Your task to perform on an android device: open app "PUBG MOBILE" (install if not already installed), go to login, and select forgot password Image 0: 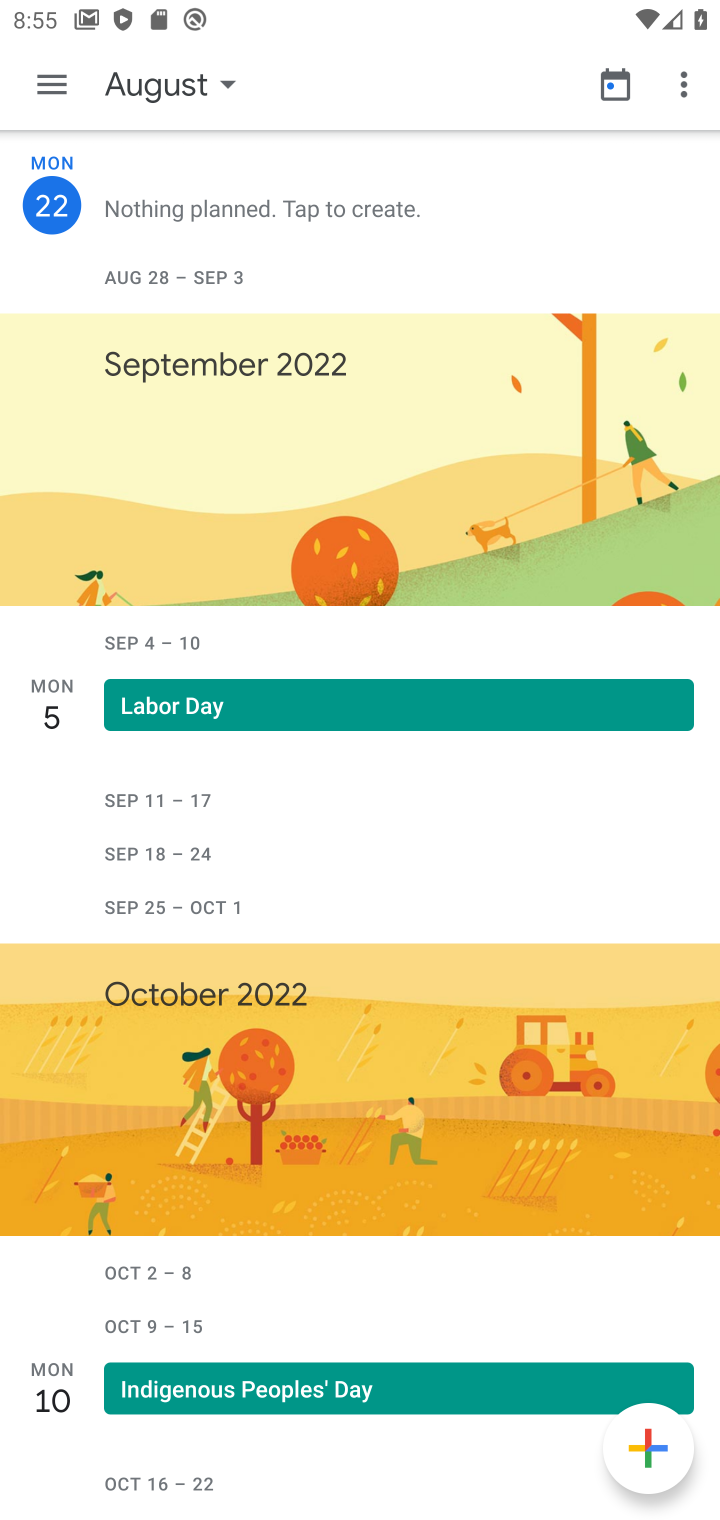
Step 0: press home button
Your task to perform on an android device: open app "PUBG MOBILE" (install if not already installed), go to login, and select forgot password Image 1: 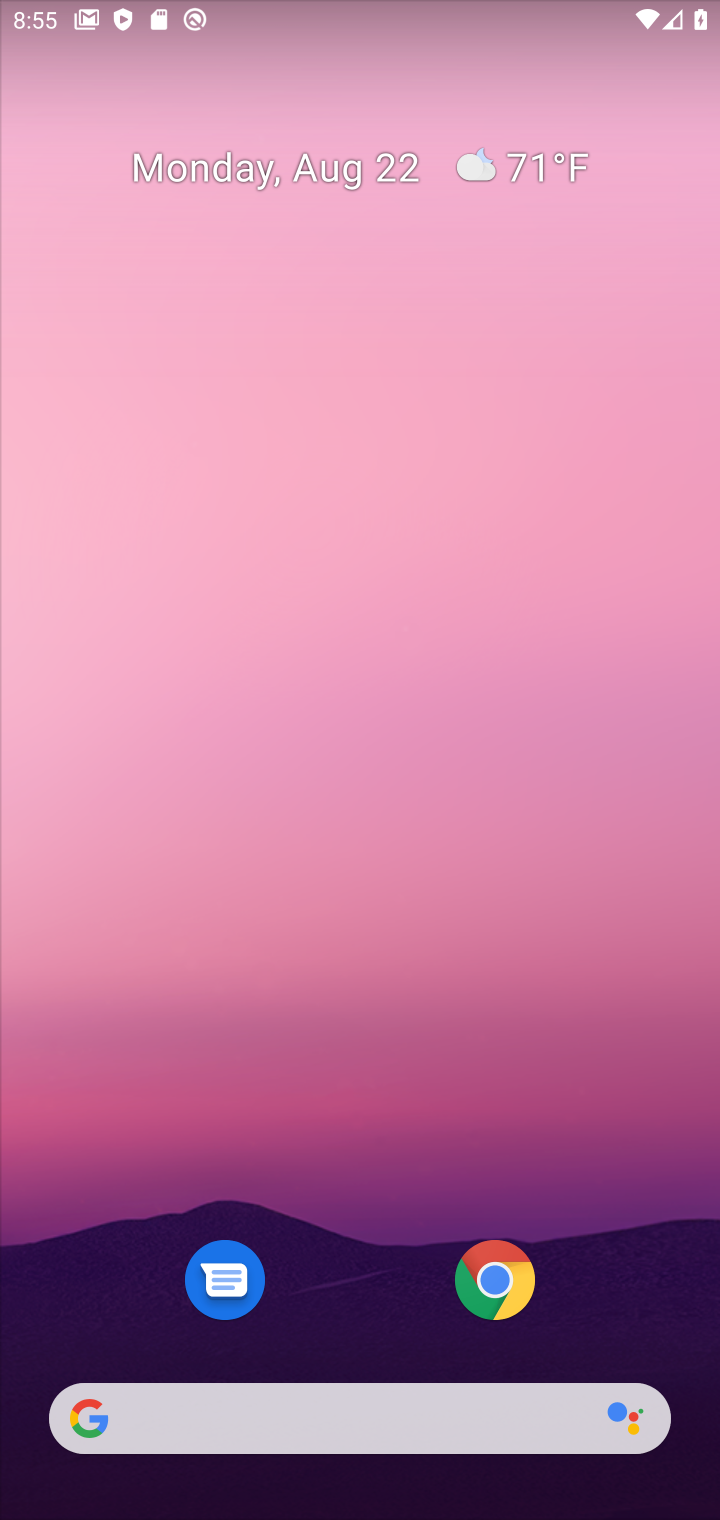
Step 1: drag from (350, 870) to (658, 399)
Your task to perform on an android device: open app "PUBG MOBILE" (install if not already installed), go to login, and select forgot password Image 2: 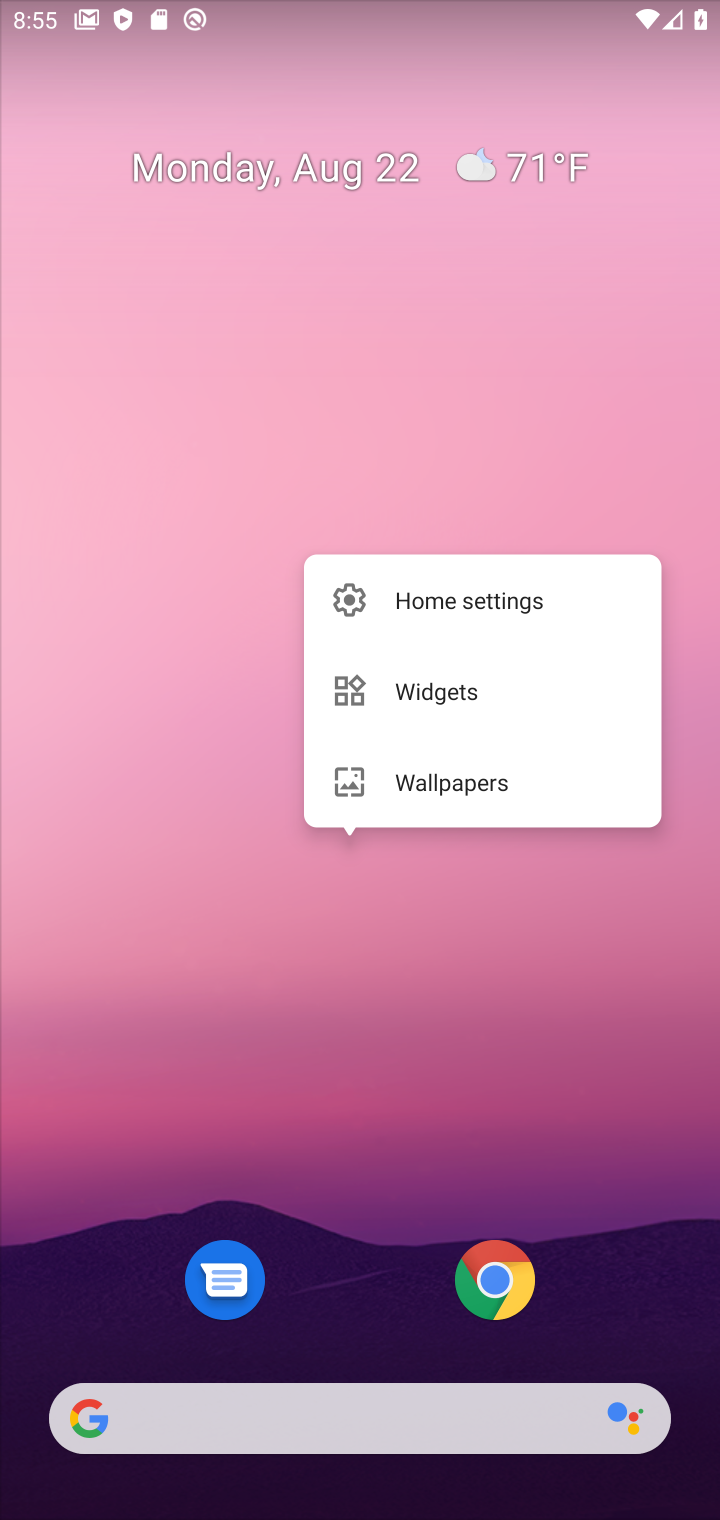
Step 2: click (89, 903)
Your task to perform on an android device: open app "PUBG MOBILE" (install if not already installed), go to login, and select forgot password Image 3: 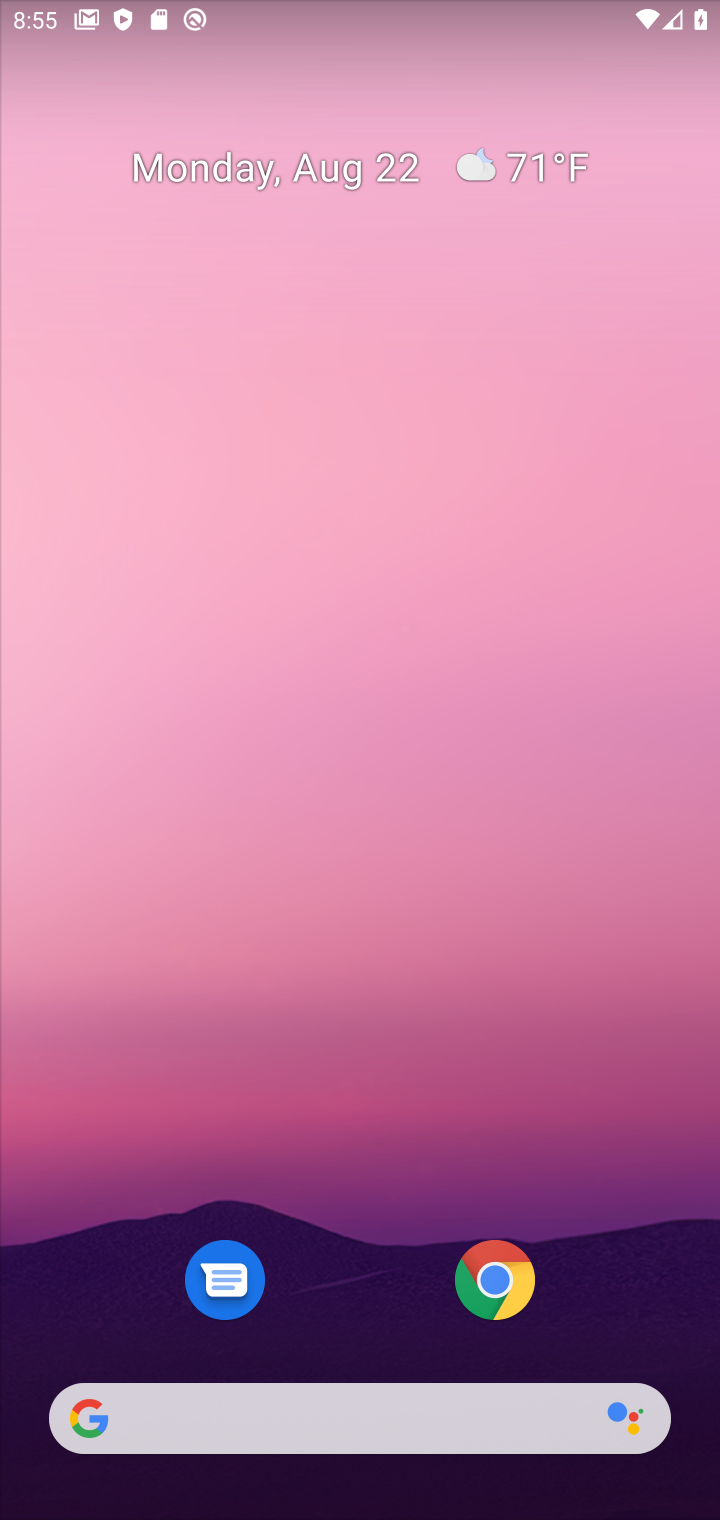
Step 3: click (312, 985)
Your task to perform on an android device: open app "PUBG MOBILE" (install if not already installed), go to login, and select forgot password Image 4: 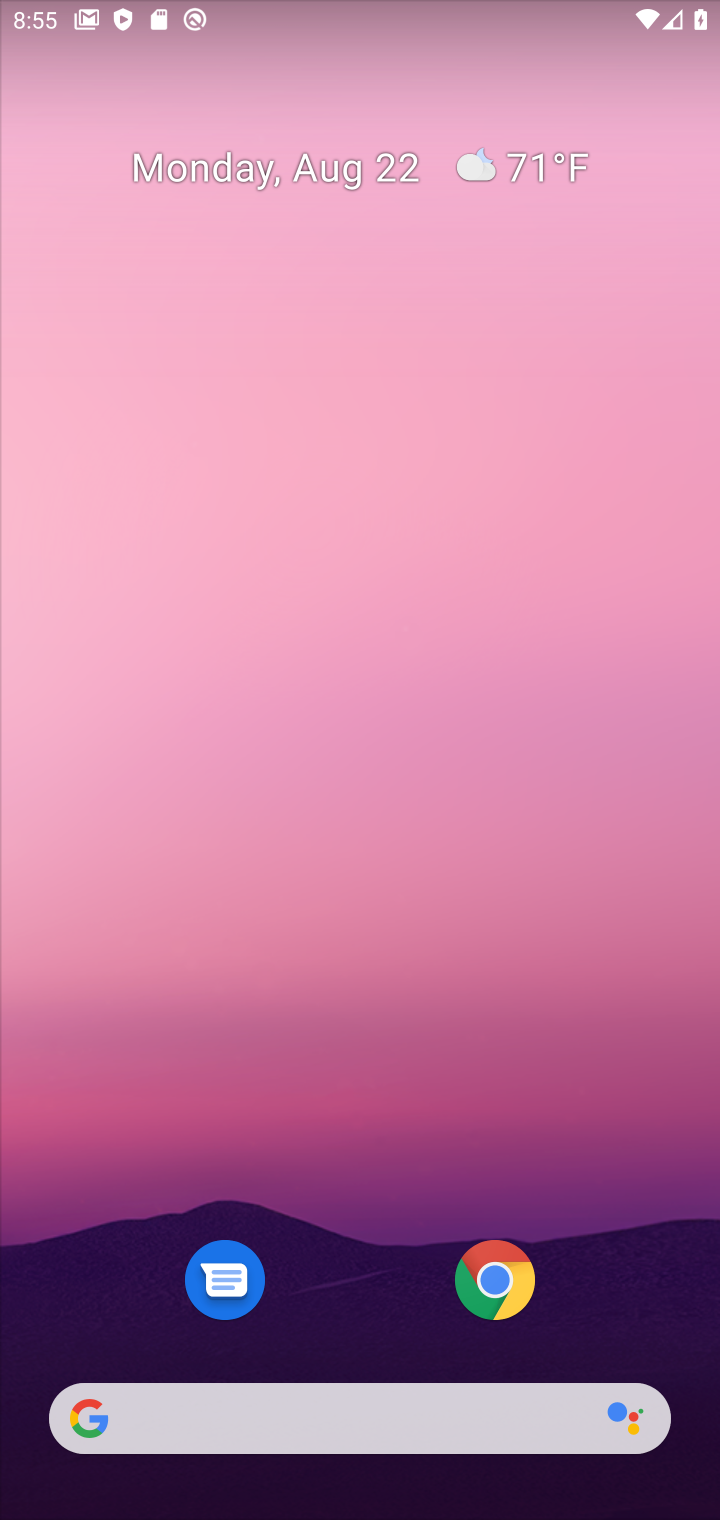
Step 4: drag from (376, 1372) to (295, 2)
Your task to perform on an android device: open app "PUBG MOBILE" (install if not already installed), go to login, and select forgot password Image 5: 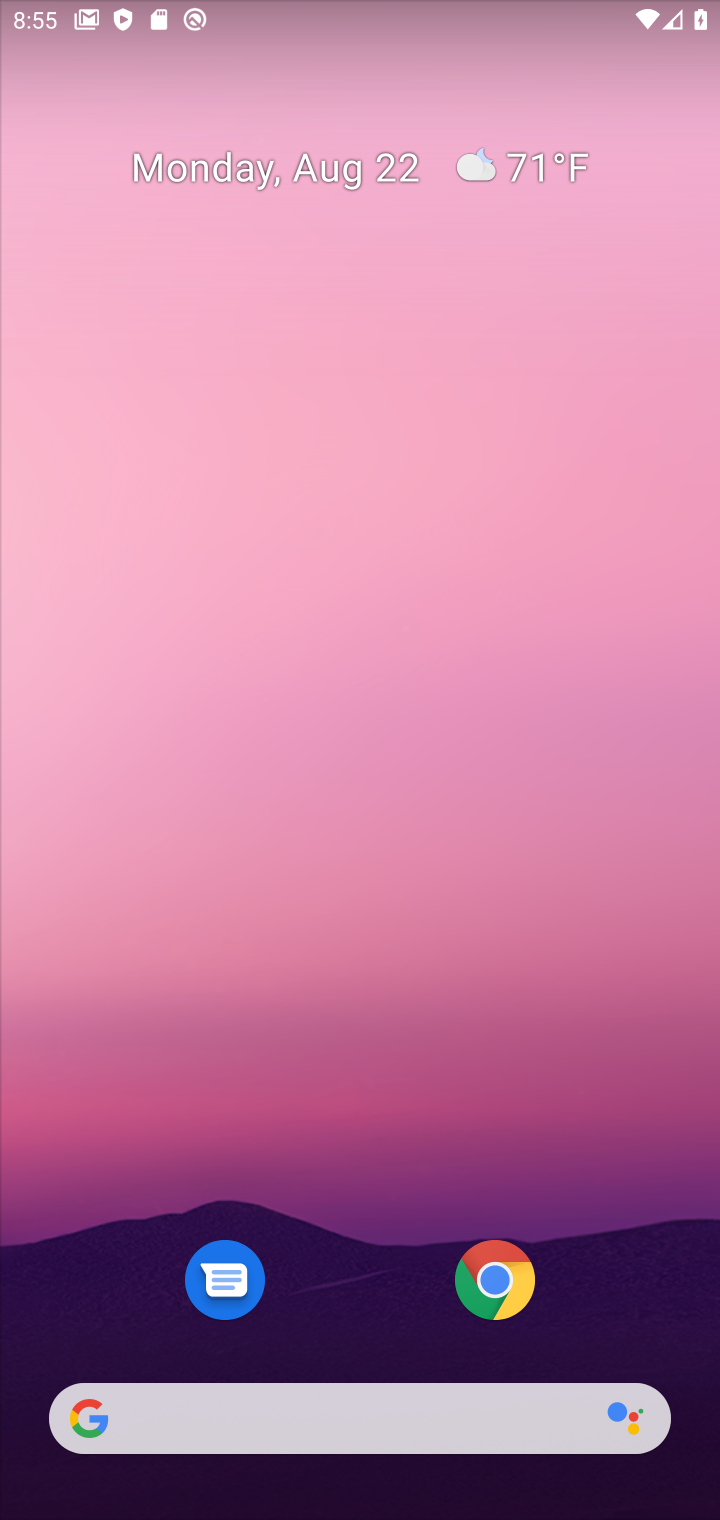
Step 5: drag from (482, 732) to (684, 50)
Your task to perform on an android device: open app "PUBG MOBILE" (install if not already installed), go to login, and select forgot password Image 6: 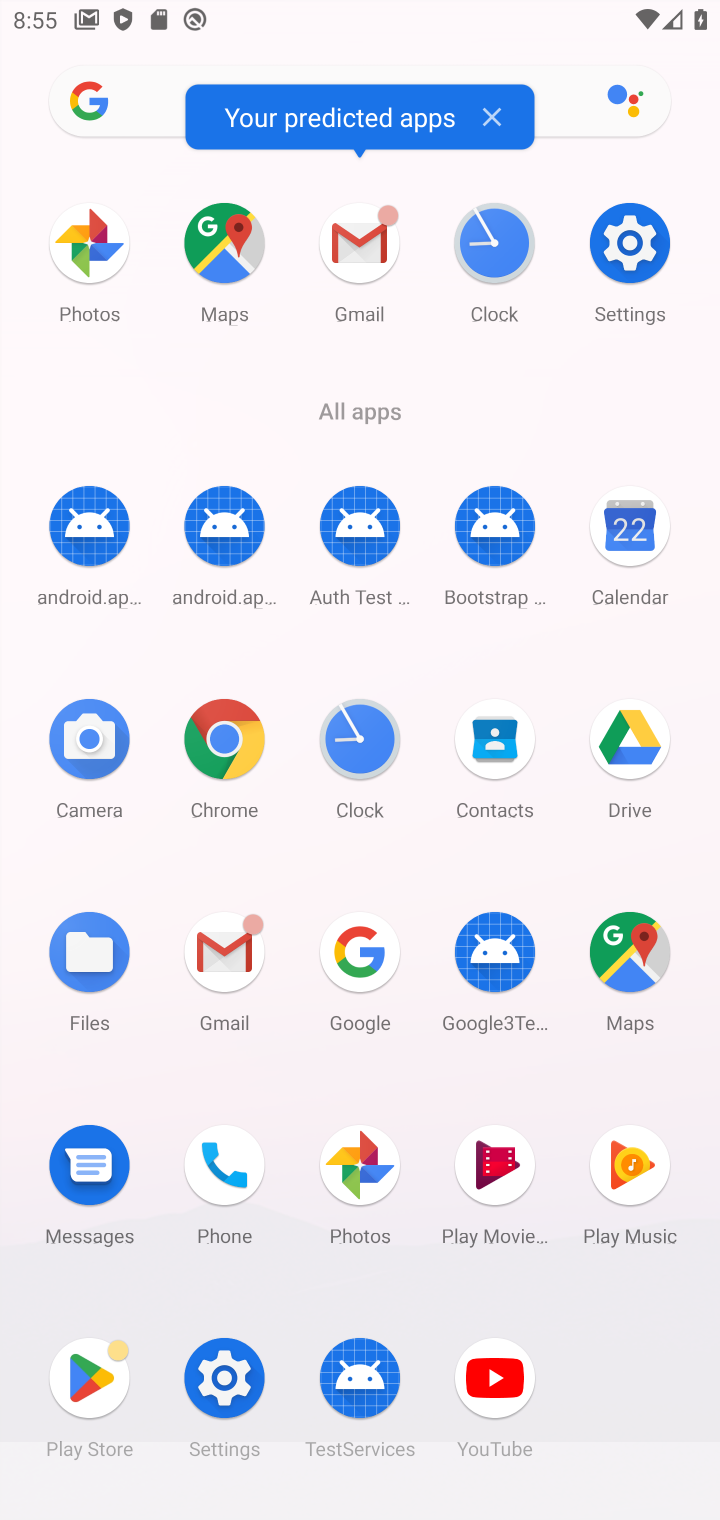
Step 6: click (360, 248)
Your task to perform on an android device: open app "PUBG MOBILE" (install if not already installed), go to login, and select forgot password Image 7: 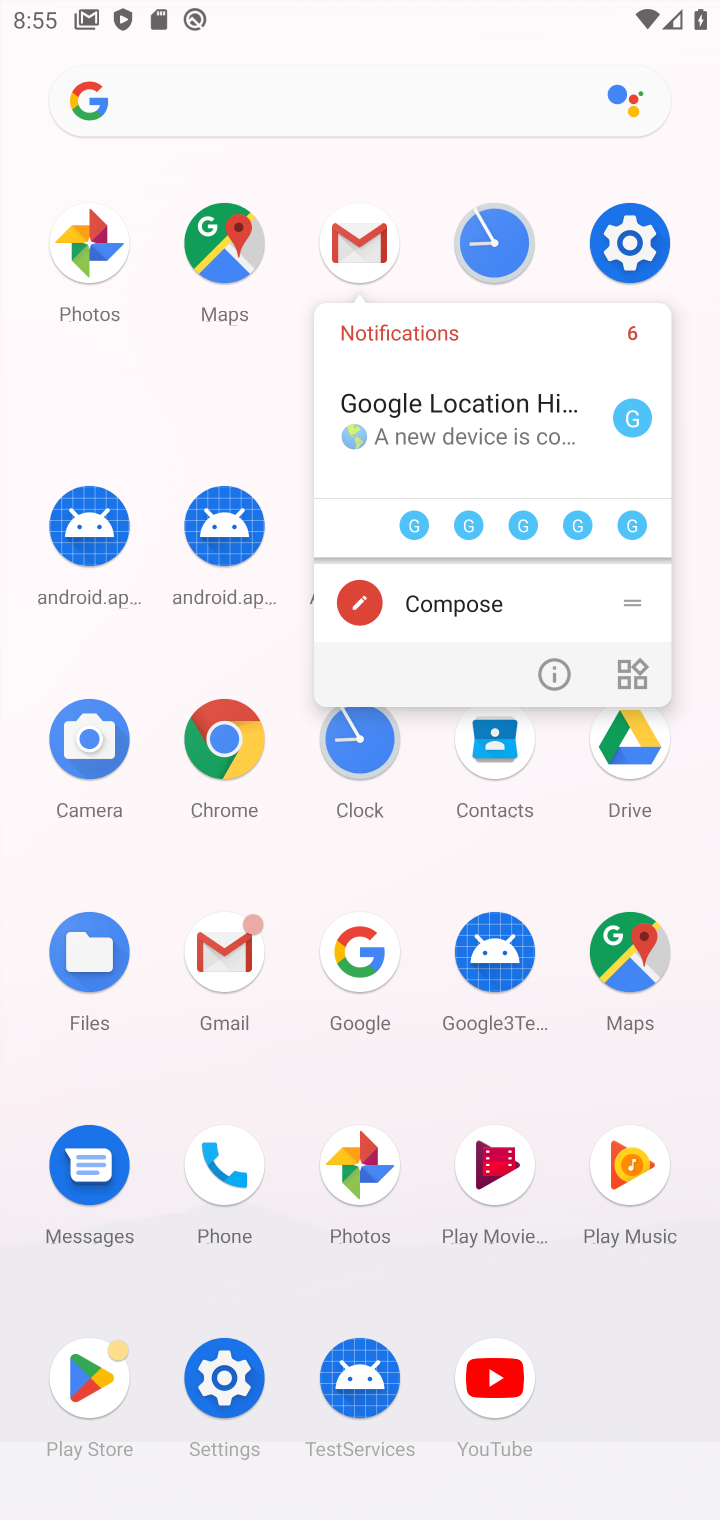
Step 7: click (361, 245)
Your task to perform on an android device: open app "PUBG MOBILE" (install if not already installed), go to login, and select forgot password Image 8: 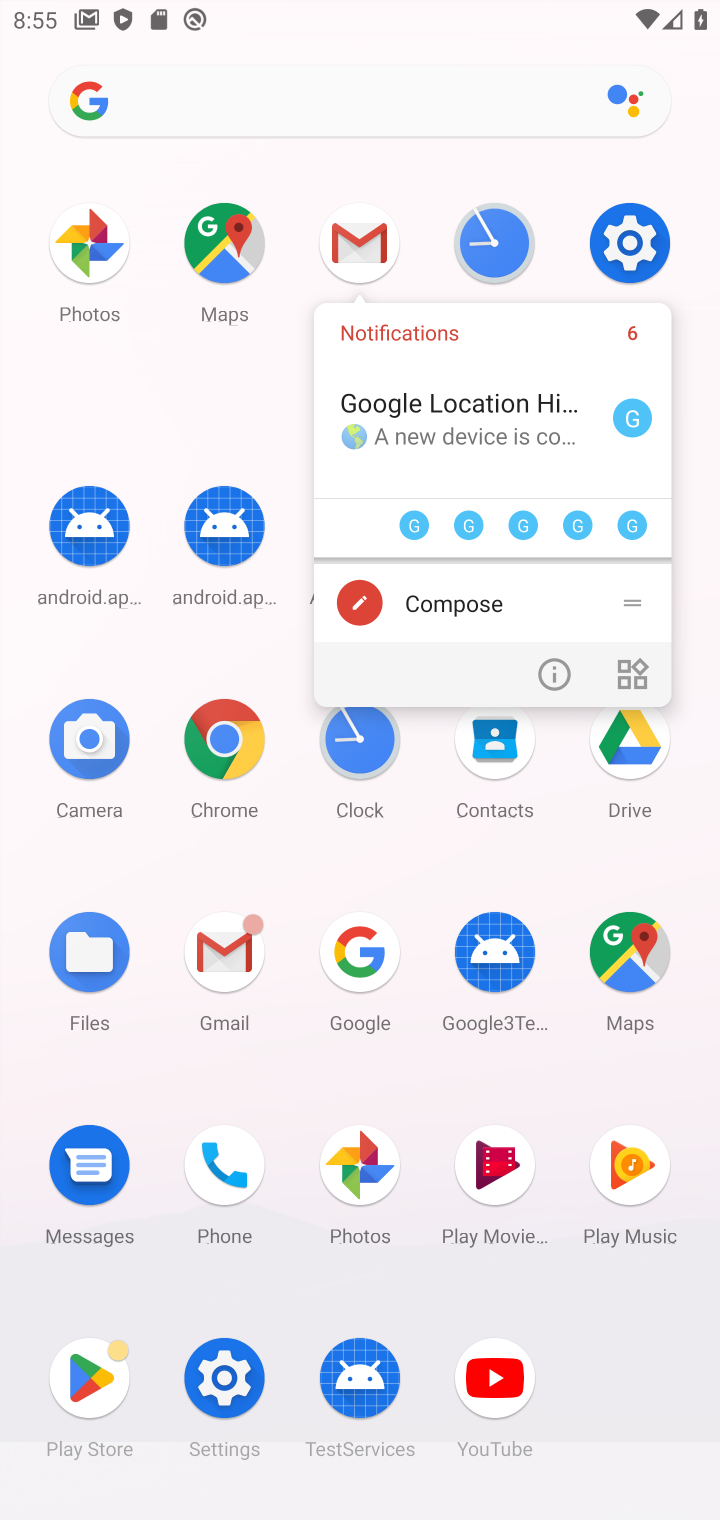
Step 8: click (361, 244)
Your task to perform on an android device: open app "PUBG MOBILE" (install if not already installed), go to login, and select forgot password Image 9: 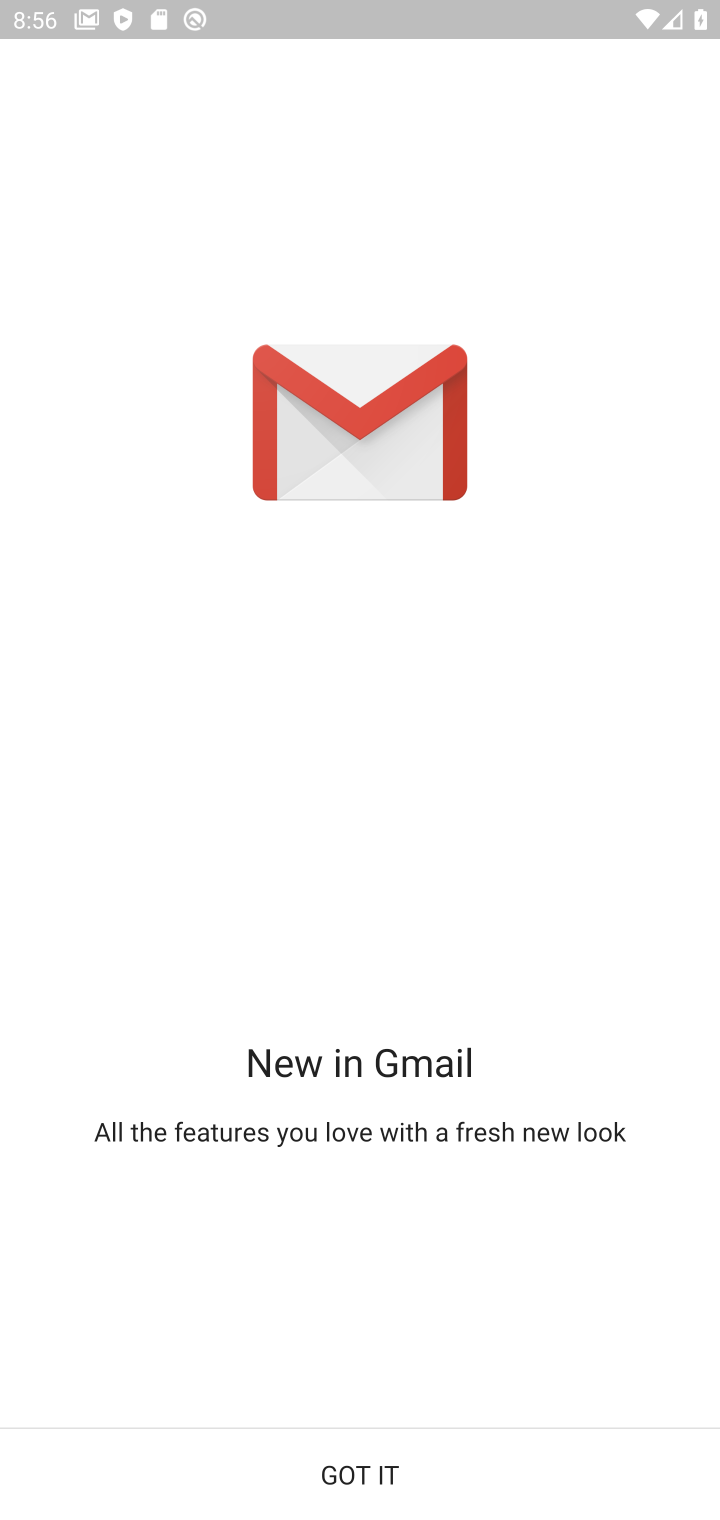
Step 9: press home button
Your task to perform on an android device: open app "PUBG MOBILE" (install if not already installed), go to login, and select forgot password Image 10: 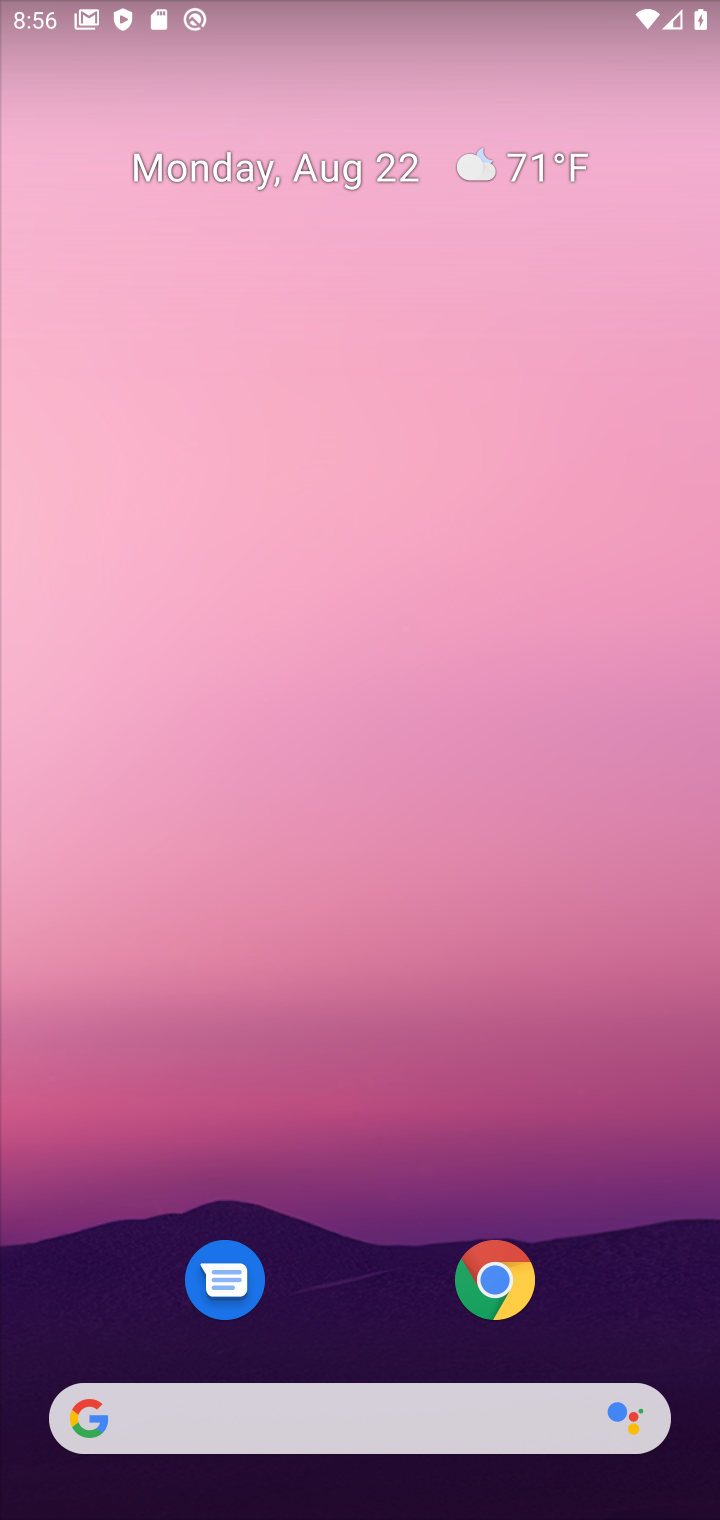
Step 10: drag from (416, 713) to (376, 21)
Your task to perform on an android device: open app "PUBG MOBILE" (install if not already installed), go to login, and select forgot password Image 11: 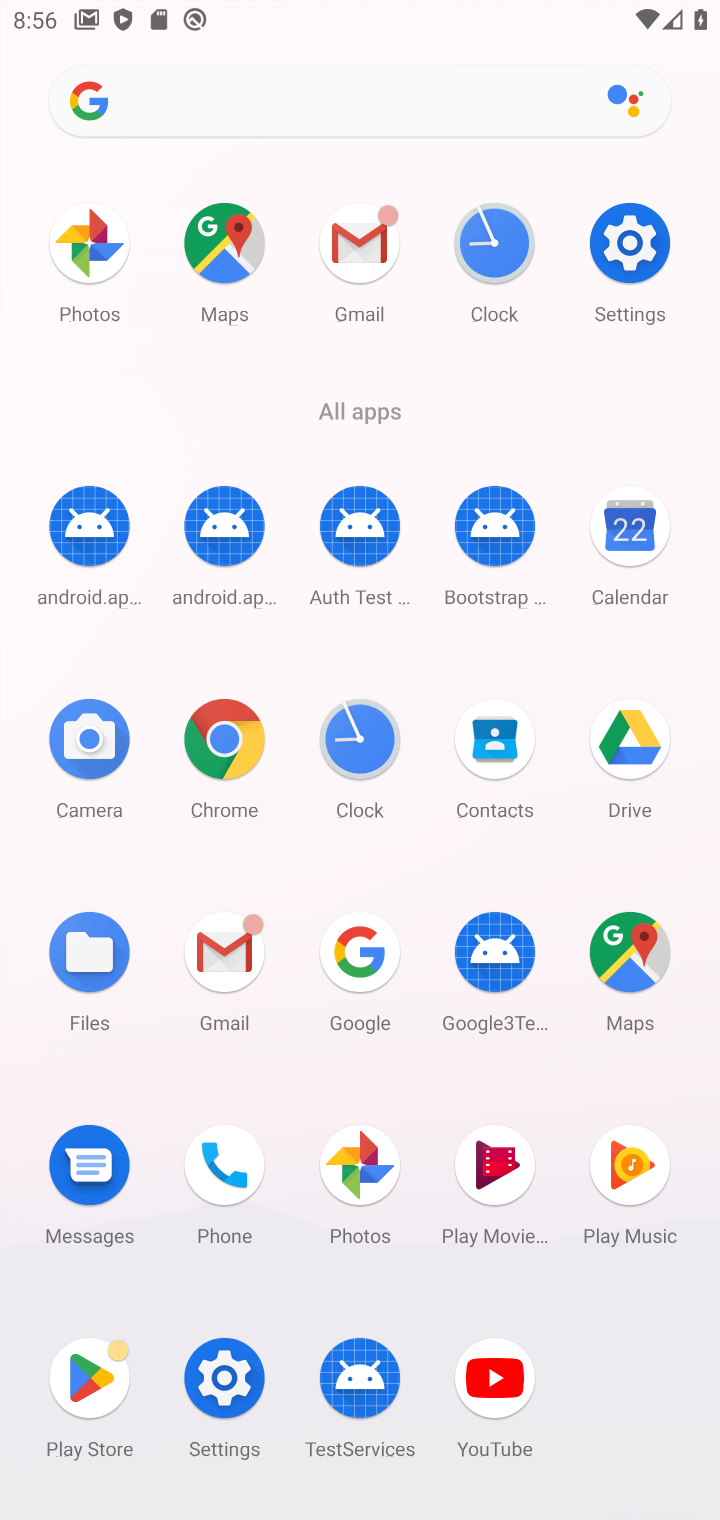
Step 11: drag from (534, 1318) to (394, 190)
Your task to perform on an android device: open app "PUBG MOBILE" (install if not already installed), go to login, and select forgot password Image 12: 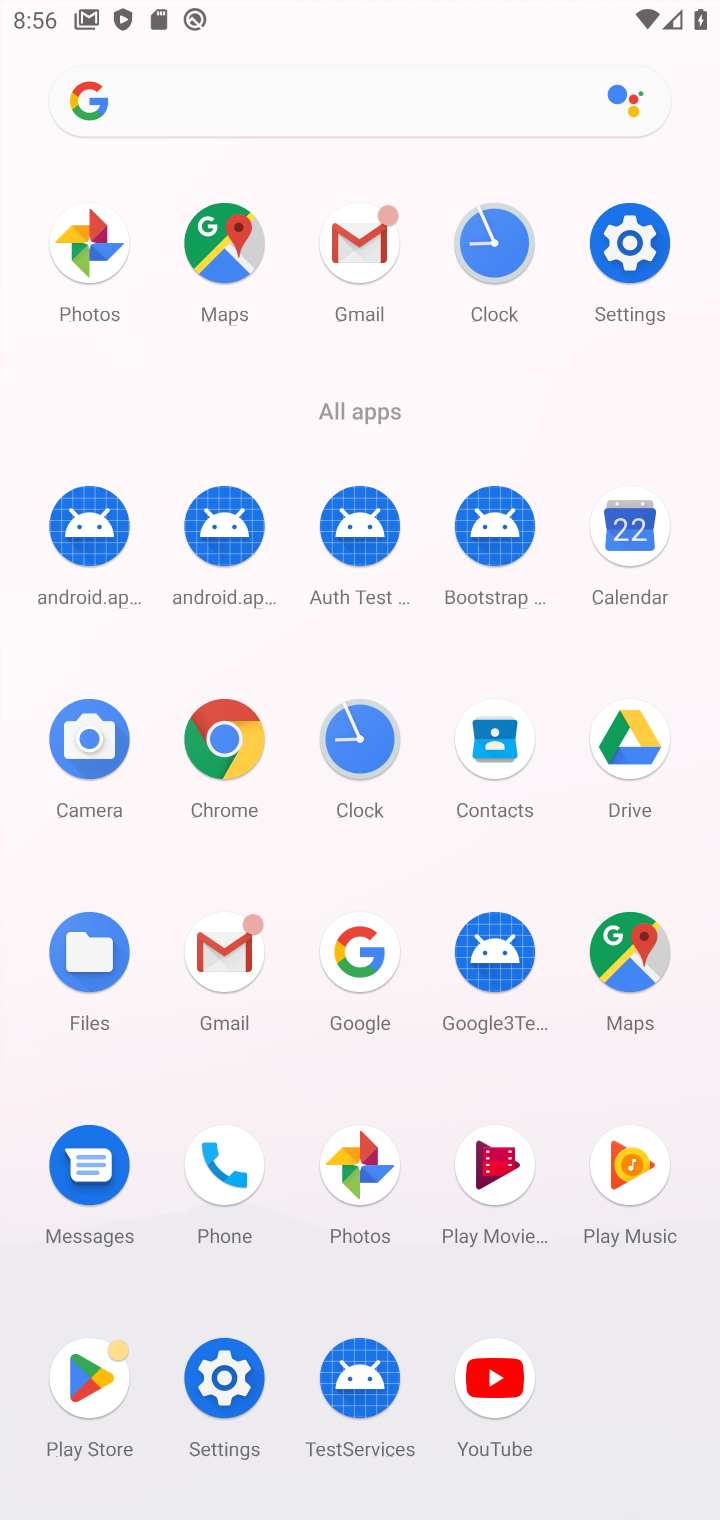
Step 12: click (88, 1351)
Your task to perform on an android device: open app "PUBG MOBILE" (install if not already installed), go to login, and select forgot password Image 13: 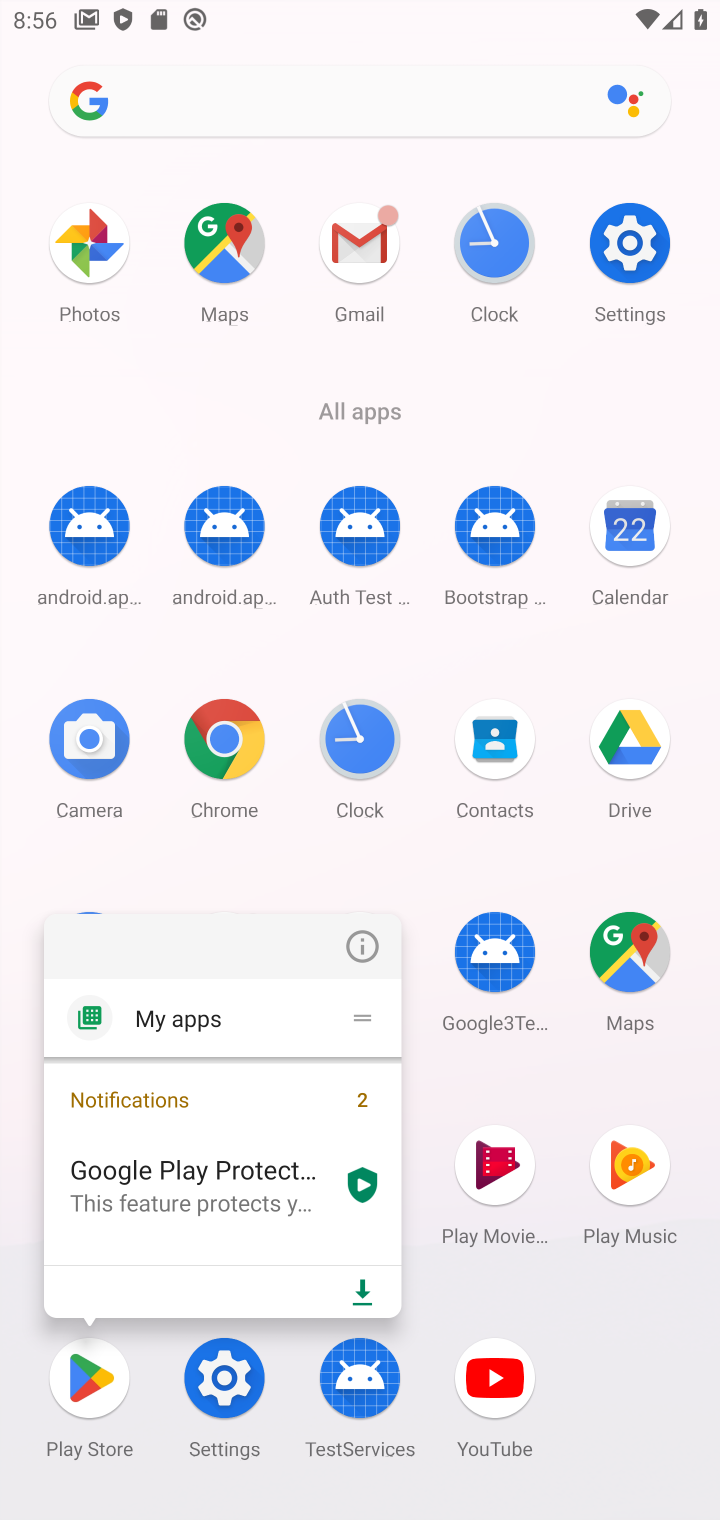
Step 13: click (86, 1390)
Your task to perform on an android device: open app "PUBG MOBILE" (install if not already installed), go to login, and select forgot password Image 14: 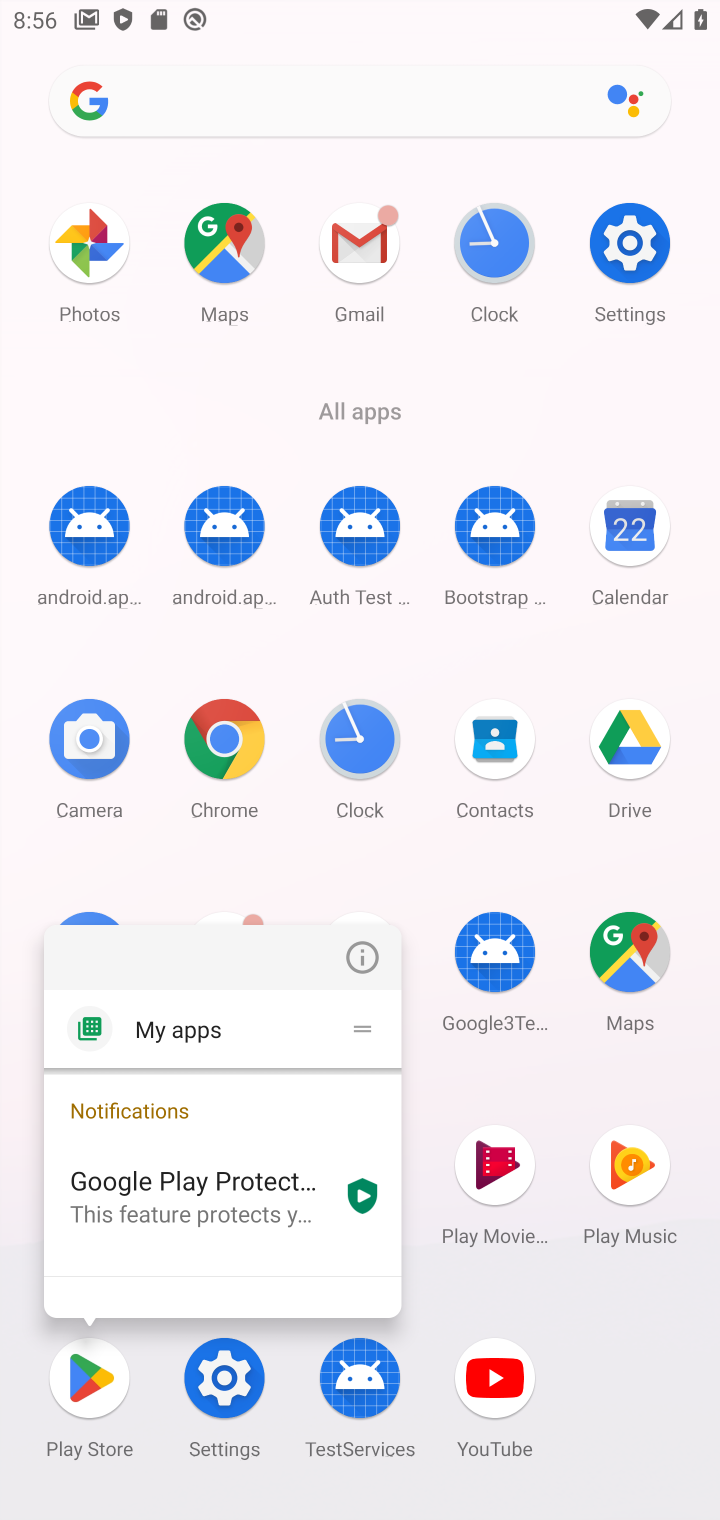
Step 14: click (97, 1376)
Your task to perform on an android device: open app "PUBG MOBILE" (install if not already installed), go to login, and select forgot password Image 15: 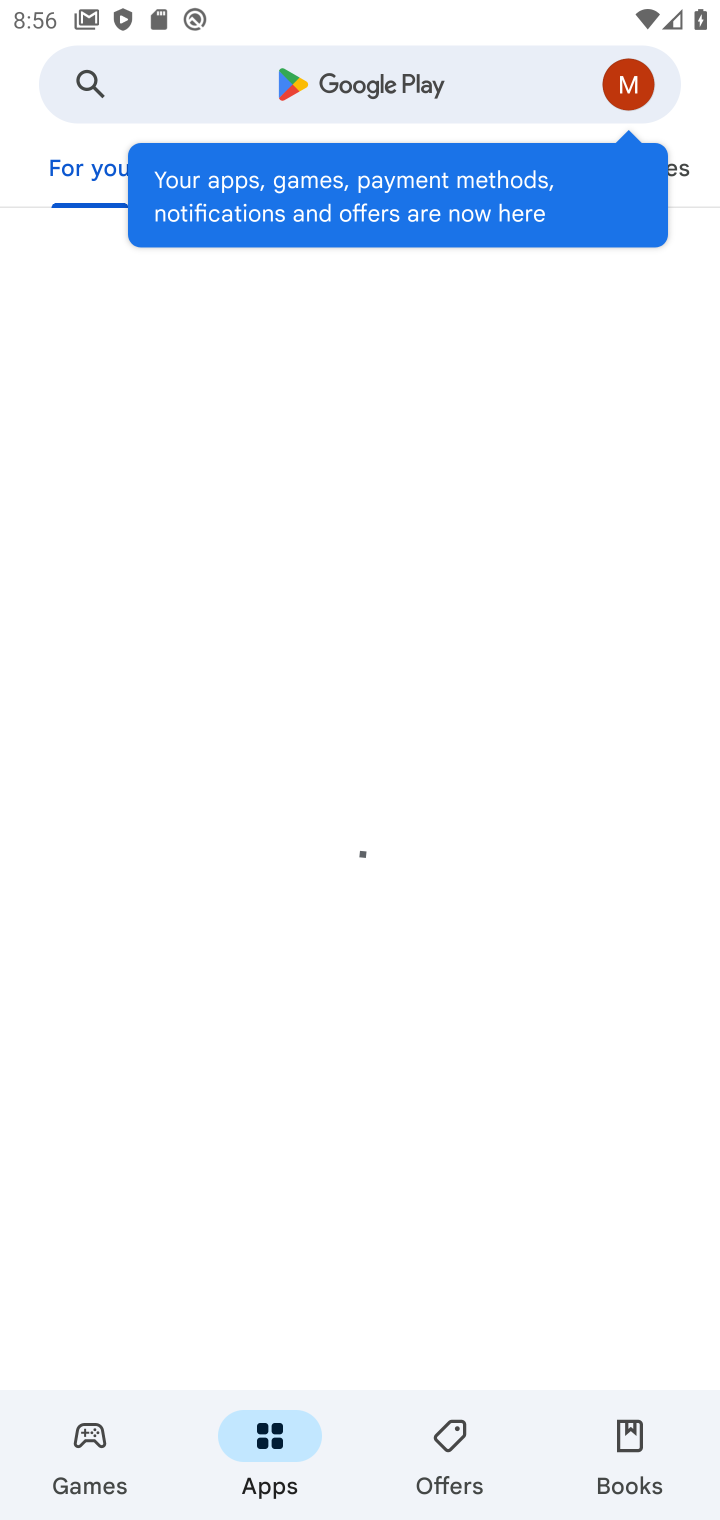
Step 15: click (156, 76)
Your task to perform on an android device: open app "PUBG MOBILE" (install if not already installed), go to login, and select forgot password Image 16: 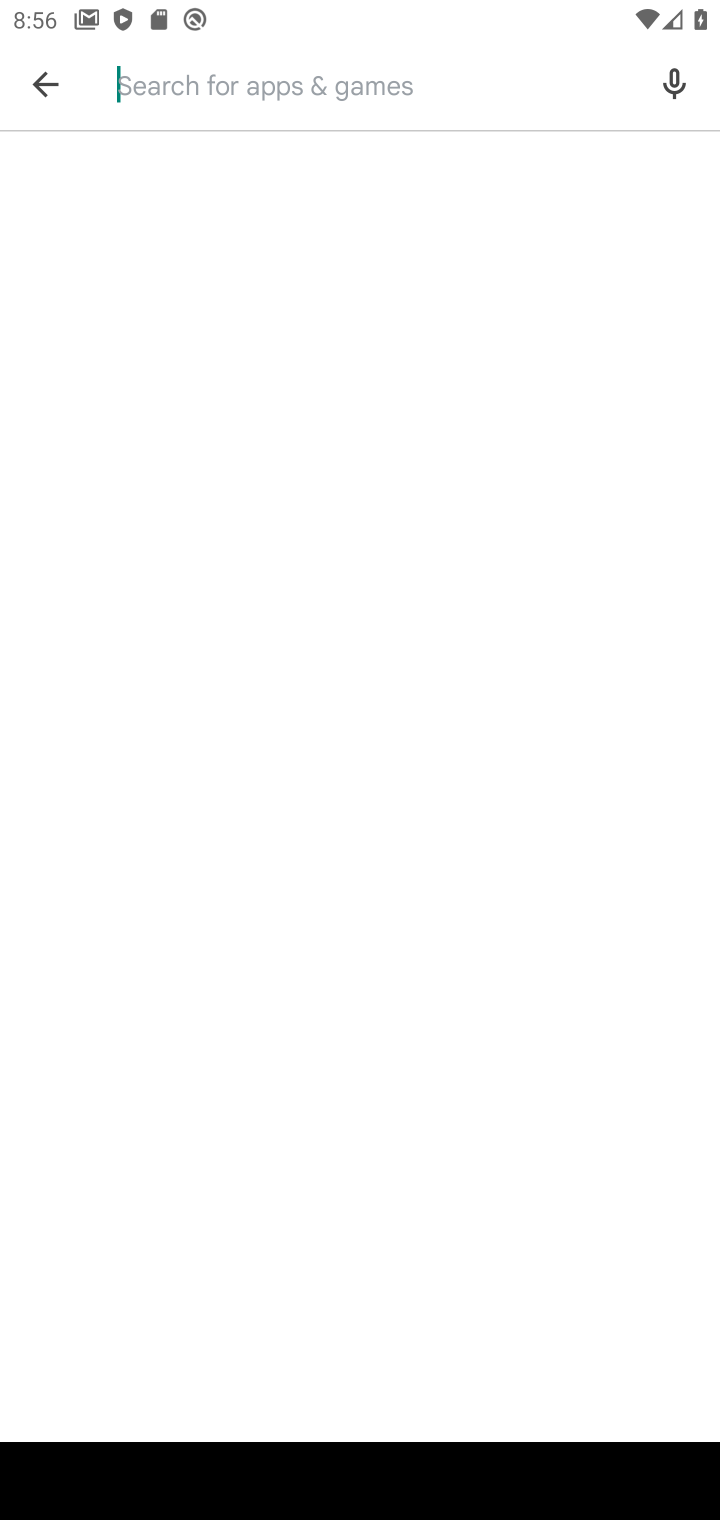
Step 16: type "PUBG MOBILE"
Your task to perform on an android device: open app "PUBG MOBILE" (install if not already installed), go to login, and select forgot password Image 17: 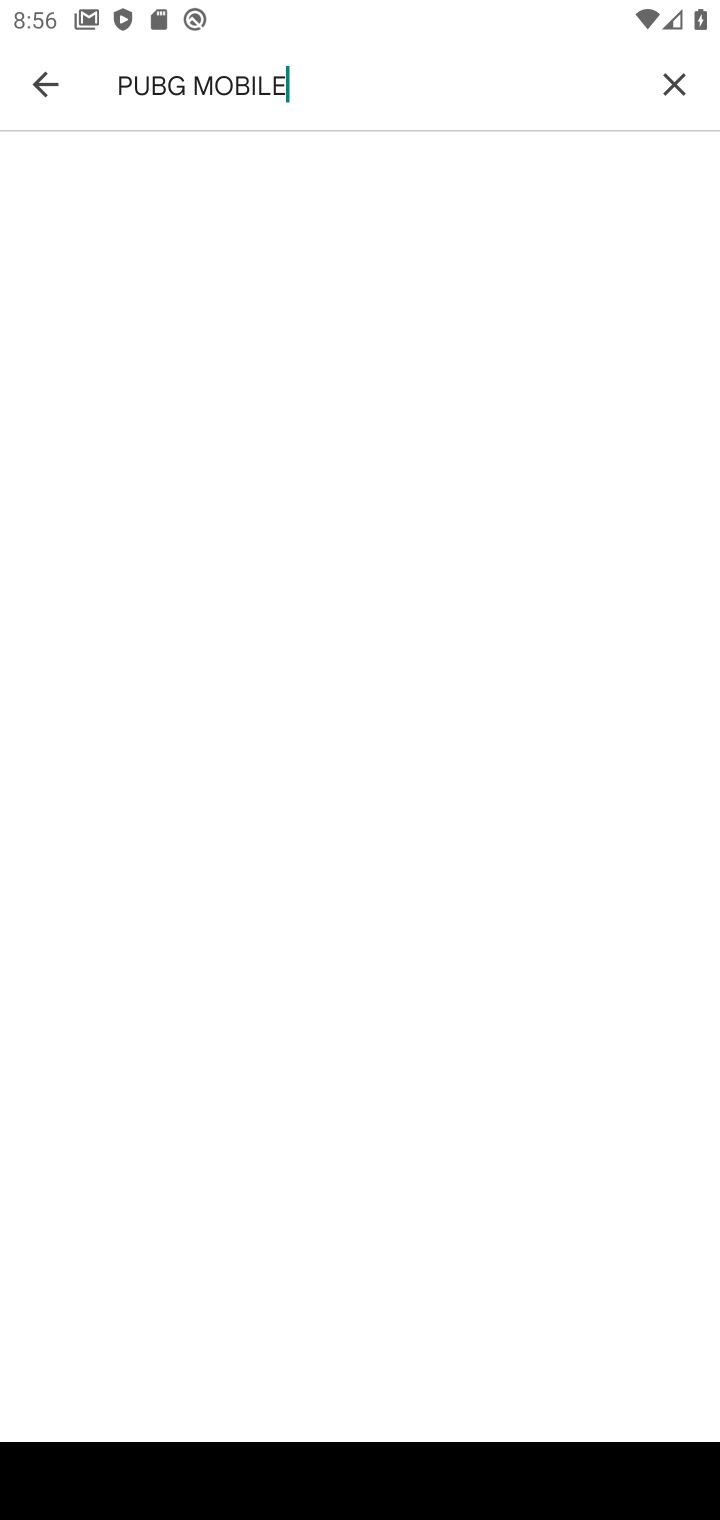
Step 17: press enter
Your task to perform on an android device: open app "PUBG MOBILE" (install if not already installed), go to login, and select forgot password Image 18: 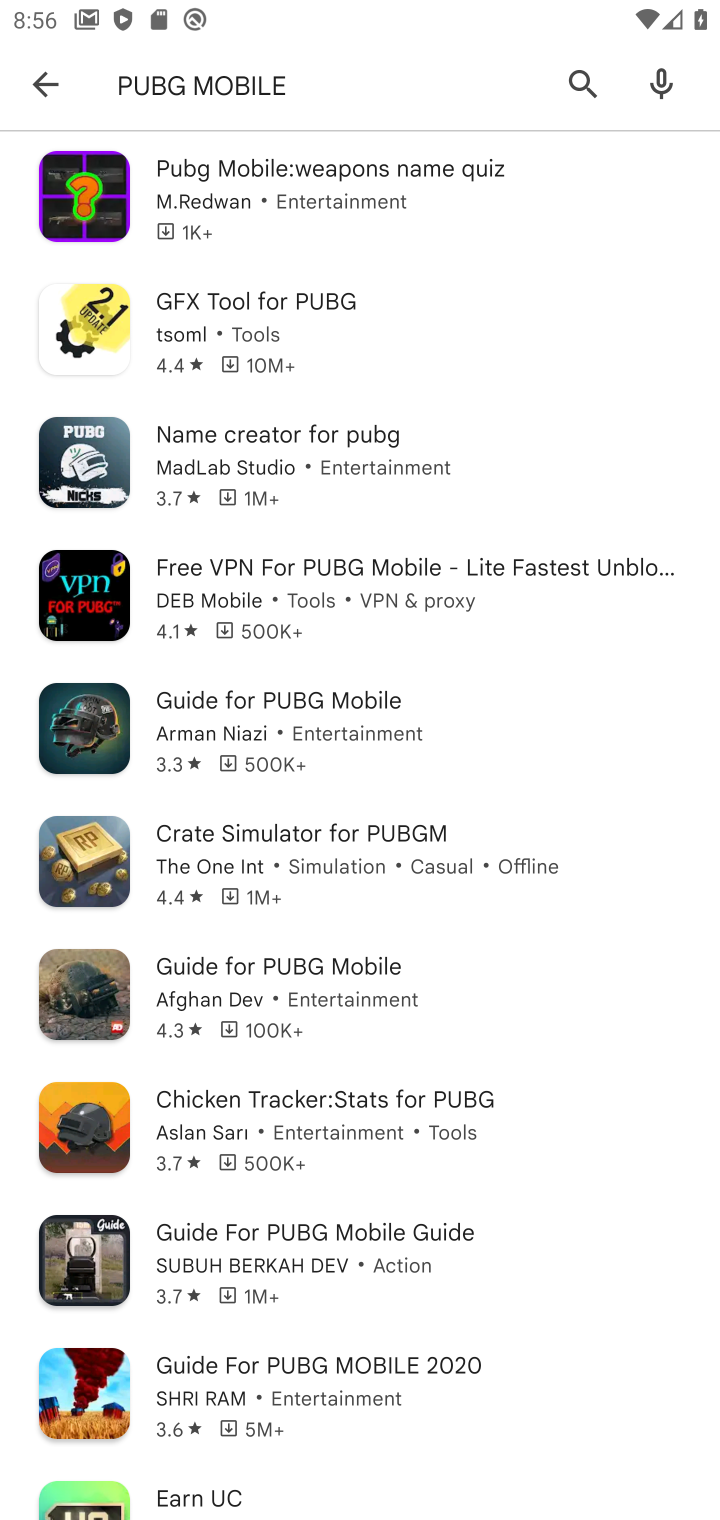
Step 18: task complete